Your task to perform on an android device: turn notification dots off Image 0: 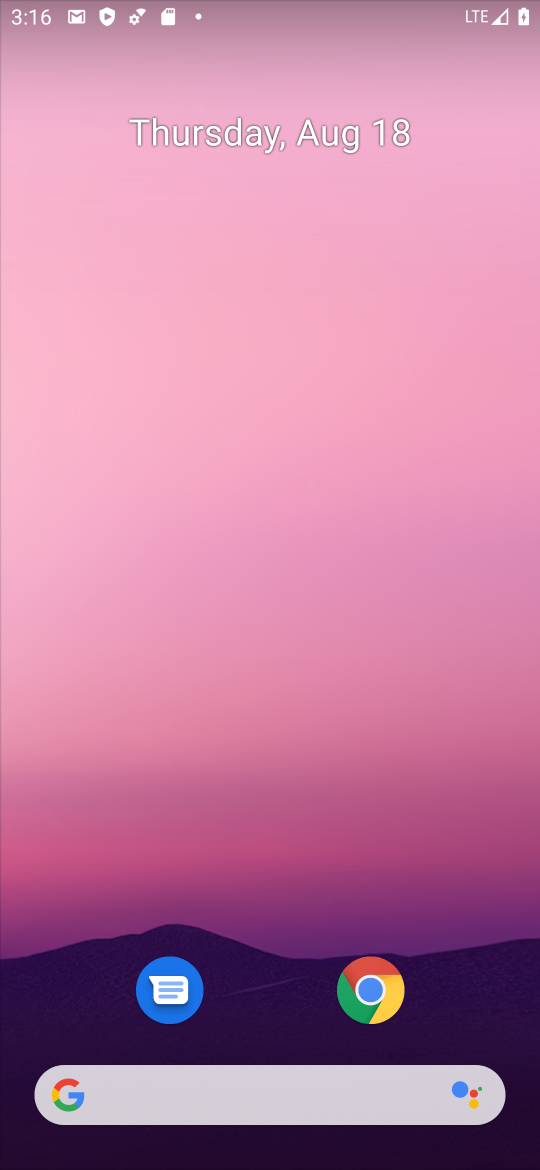
Step 0: drag from (277, 695) to (352, 78)
Your task to perform on an android device: turn notification dots off Image 1: 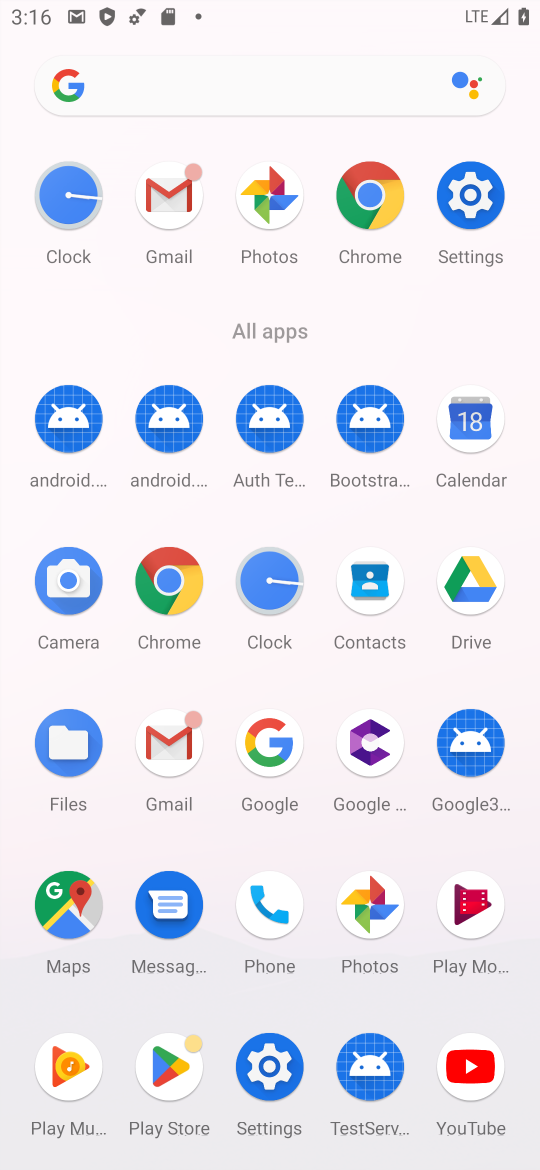
Step 1: click (264, 1078)
Your task to perform on an android device: turn notification dots off Image 2: 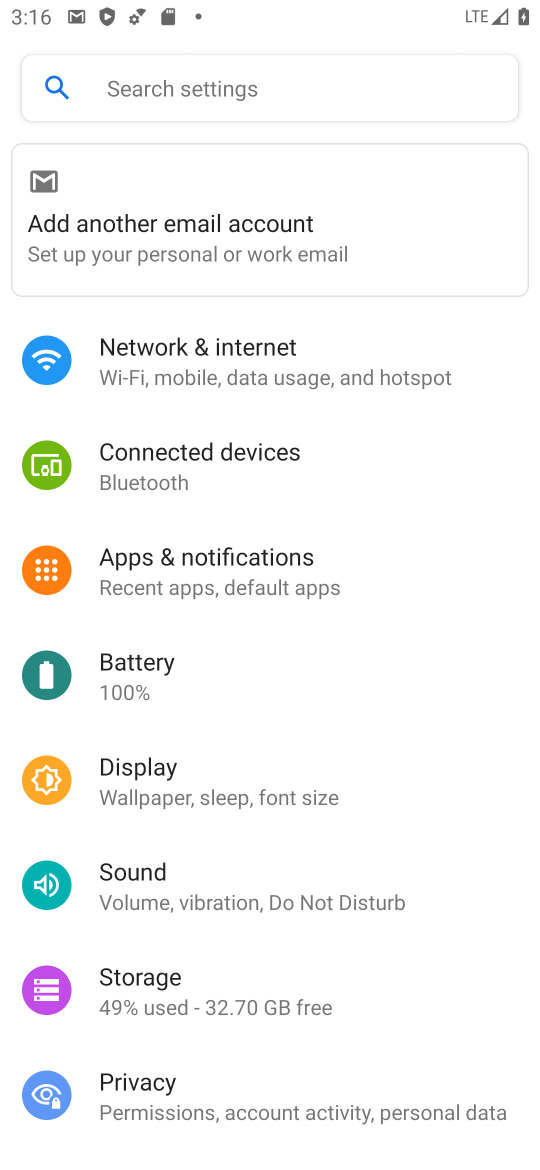
Step 2: drag from (269, 1027) to (272, 702)
Your task to perform on an android device: turn notification dots off Image 3: 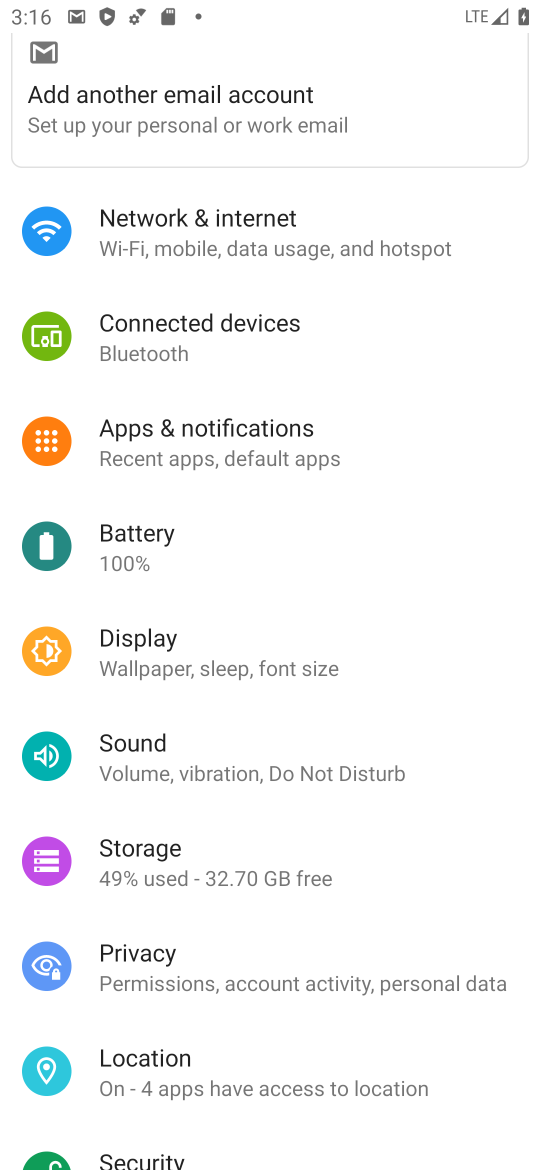
Step 3: click (233, 440)
Your task to perform on an android device: turn notification dots off Image 4: 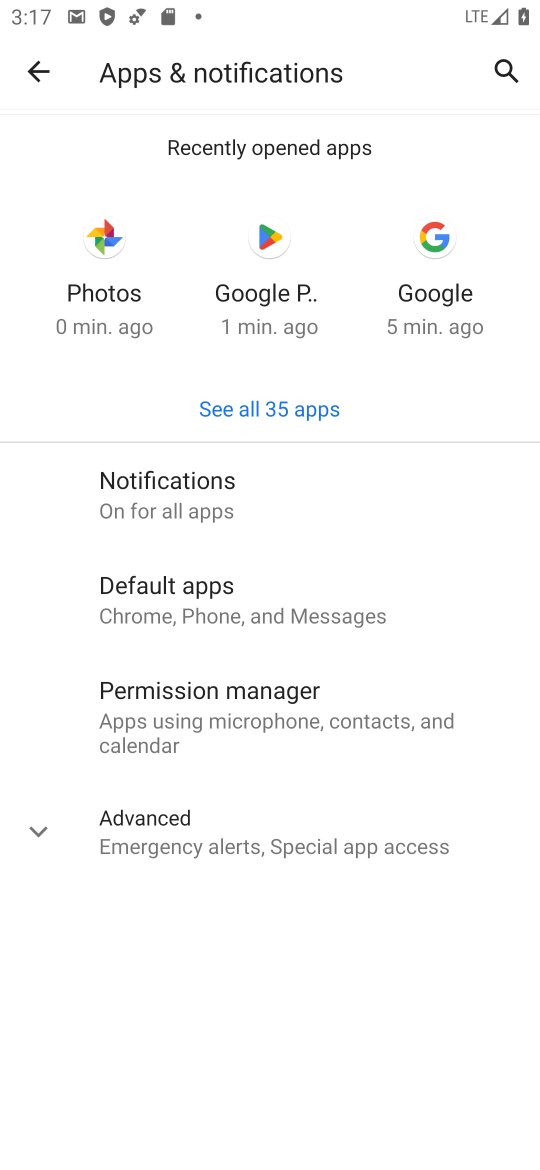
Step 4: click (215, 495)
Your task to perform on an android device: turn notification dots off Image 5: 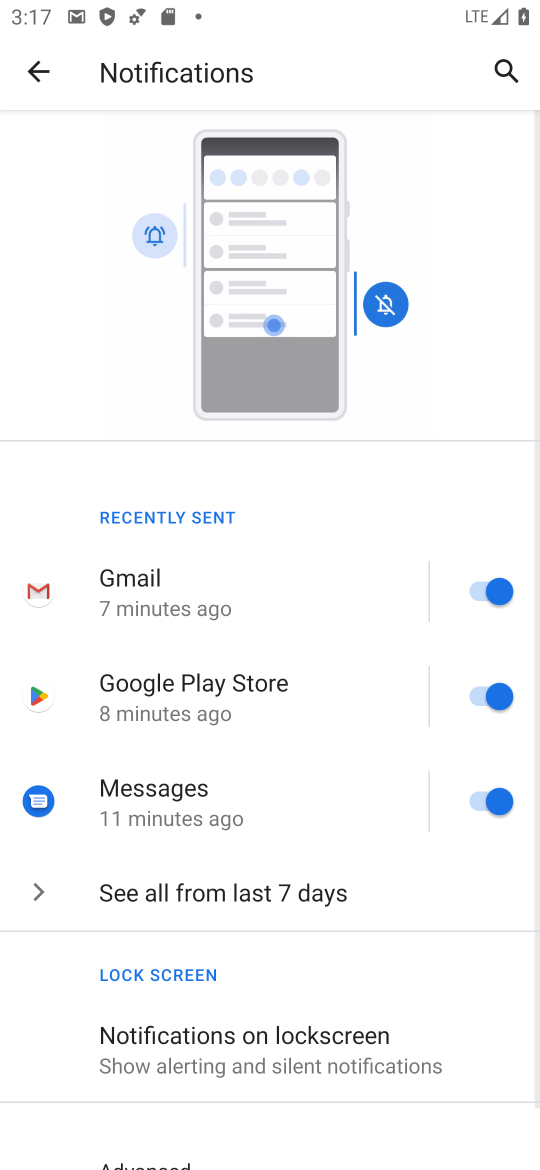
Step 5: drag from (304, 984) to (431, 354)
Your task to perform on an android device: turn notification dots off Image 6: 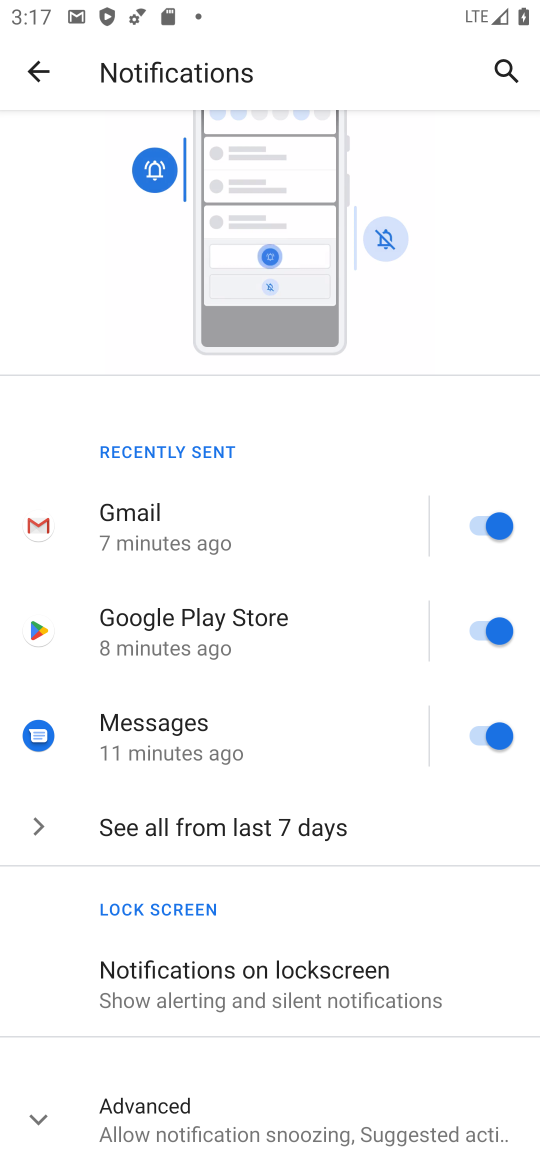
Step 6: click (280, 1124)
Your task to perform on an android device: turn notification dots off Image 7: 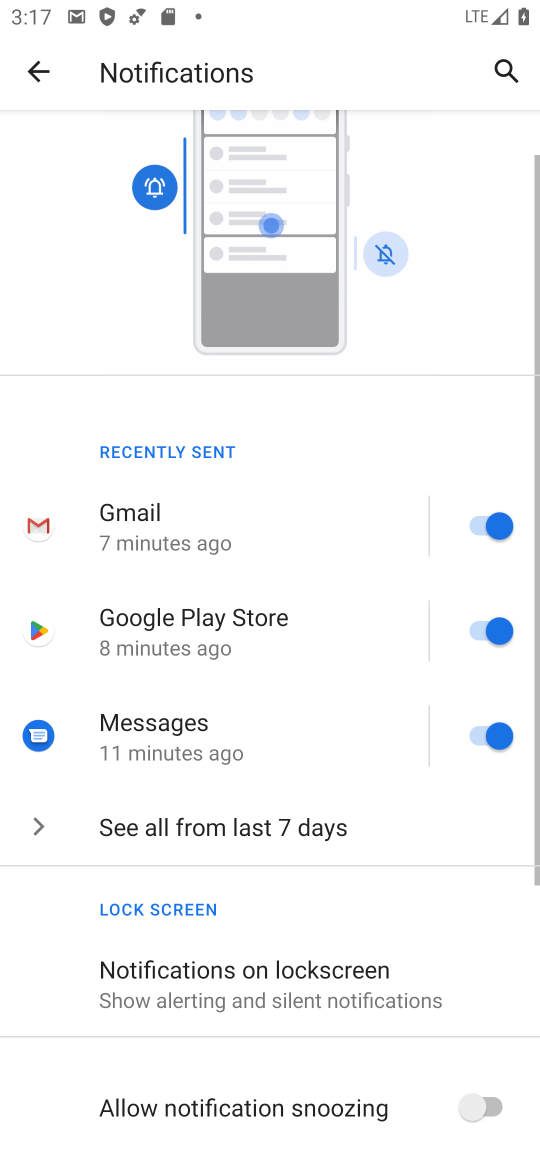
Step 7: drag from (295, 1076) to (403, 411)
Your task to perform on an android device: turn notification dots off Image 8: 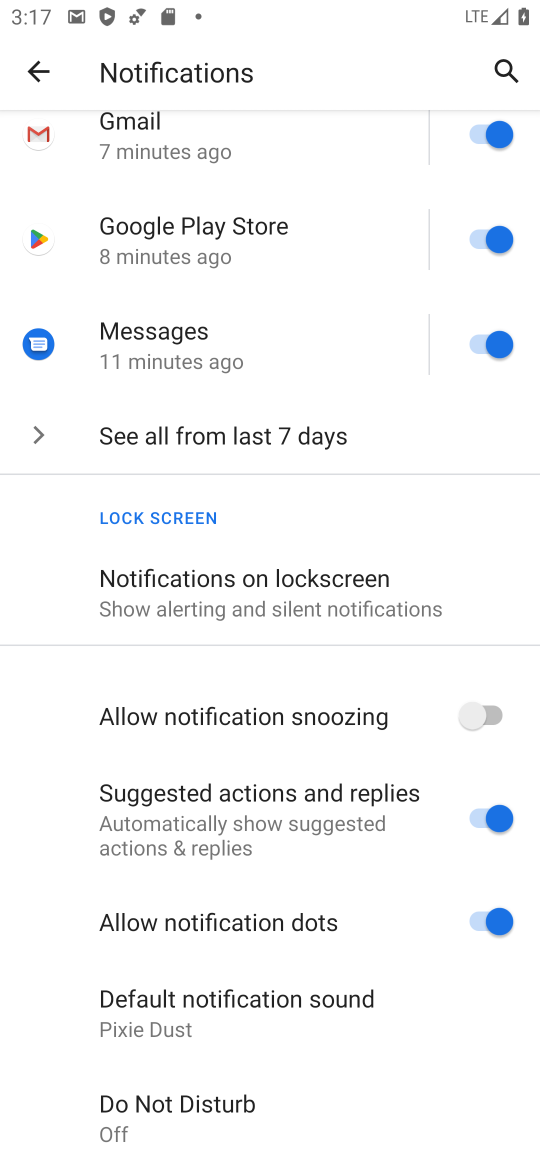
Step 8: click (502, 938)
Your task to perform on an android device: turn notification dots off Image 9: 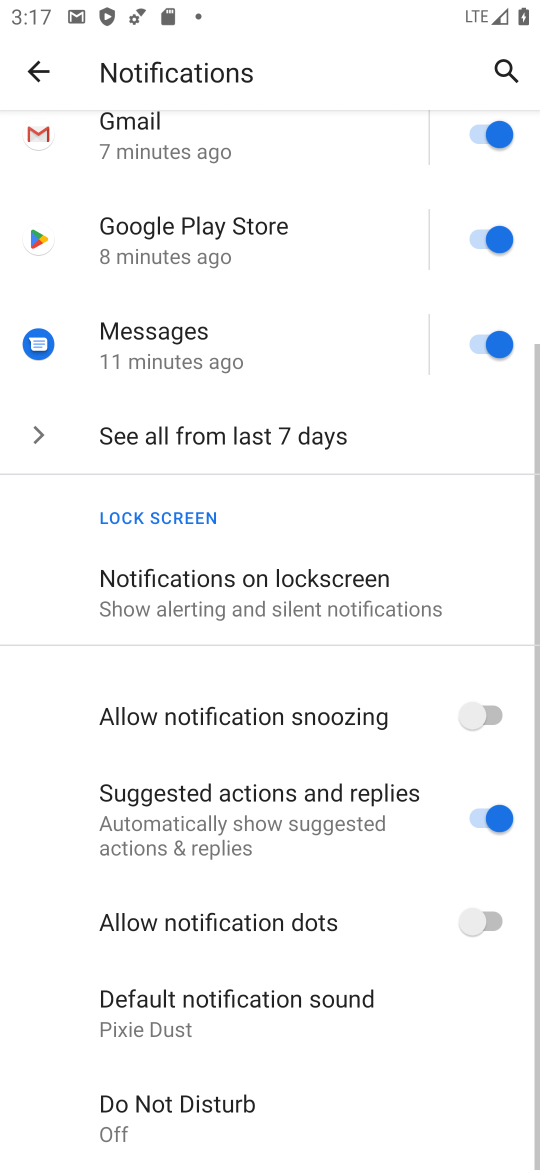
Step 9: task complete